Your task to perform on an android device: When is my next meeting? Image 0: 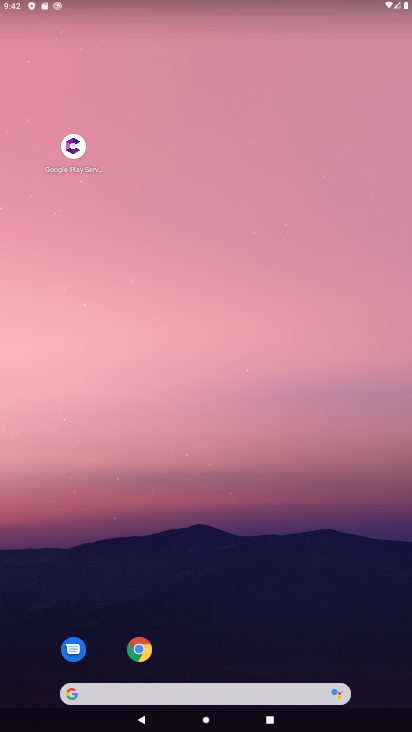
Step 0: drag from (273, 523) to (147, 1)
Your task to perform on an android device: When is my next meeting? Image 1: 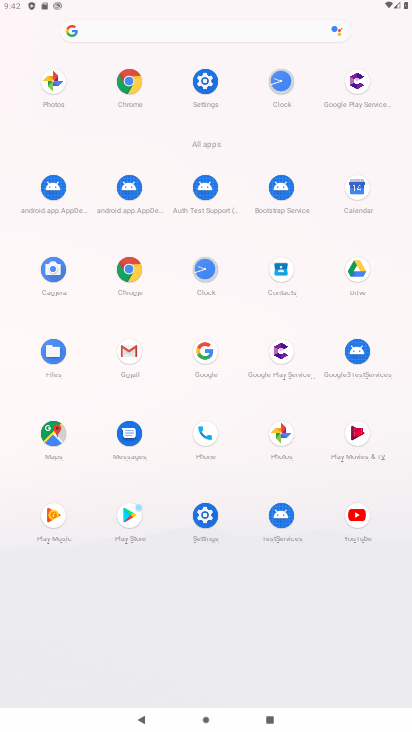
Step 1: click (361, 203)
Your task to perform on an android device: When is my next meeting? Image 2: 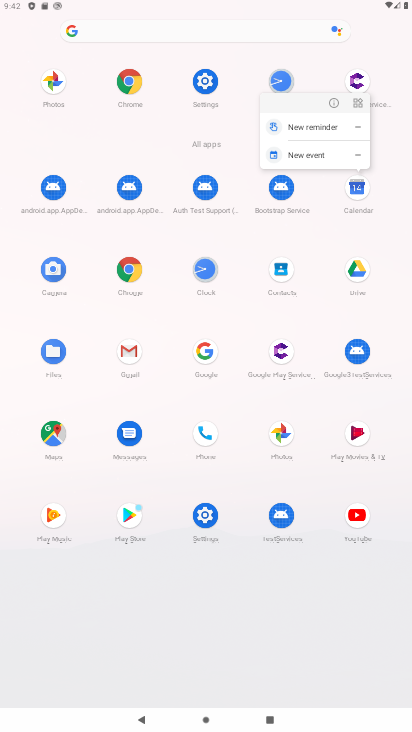
Step 2: click (364, 195)
Your task to perform on an android device: When is my next meeting? Image 3: 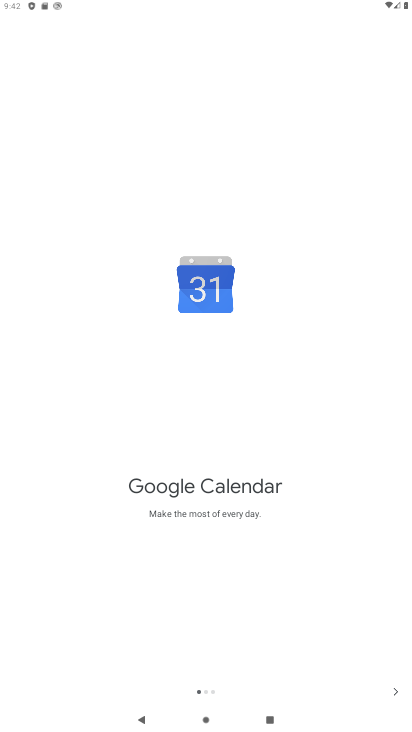
Step 3: click (391, 701)
Your task to perform on an android device: When is my next meeting? Image 4: 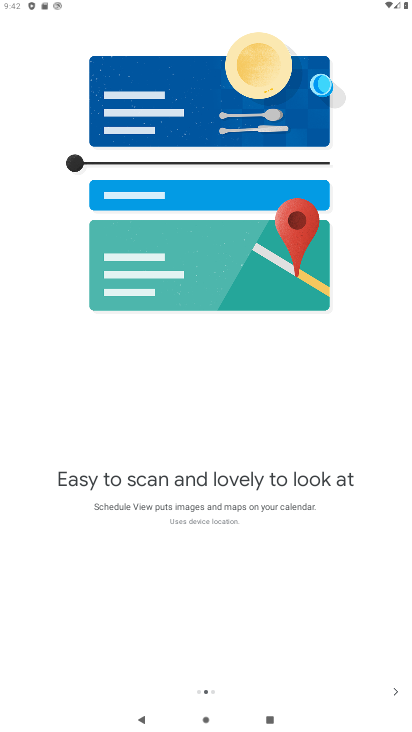
Step 4: click (392, 700)
Your task to perform on an android device: When is my next meeting? Image 5: 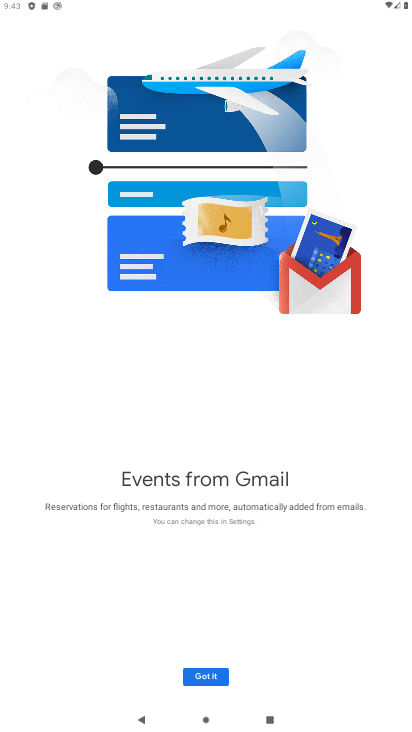
Step 5: click (214, 677)
Your task to perform on an android device: When is my next meeting? Image 6: 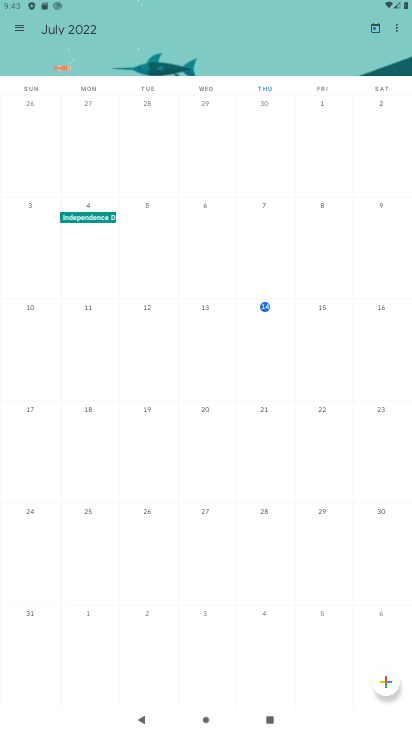
Step 6: task complete